Your task to perform on an android device: Open my contact list Image 0: 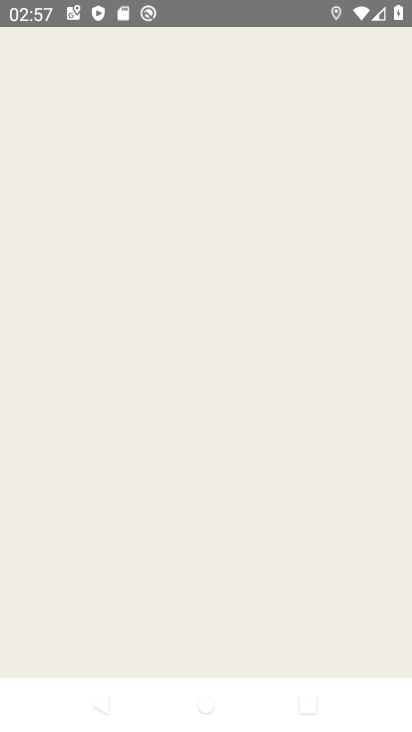
Step 0: press home button
Your task to perform on an android device: Open my contact list Image 1: 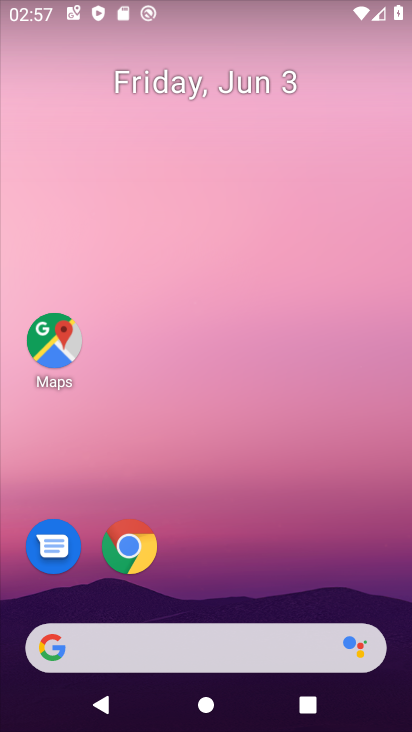
Step 1: drag from (282, 548) to (401, 31)
Your task to perform on an android device: Open my contact list Image 2: 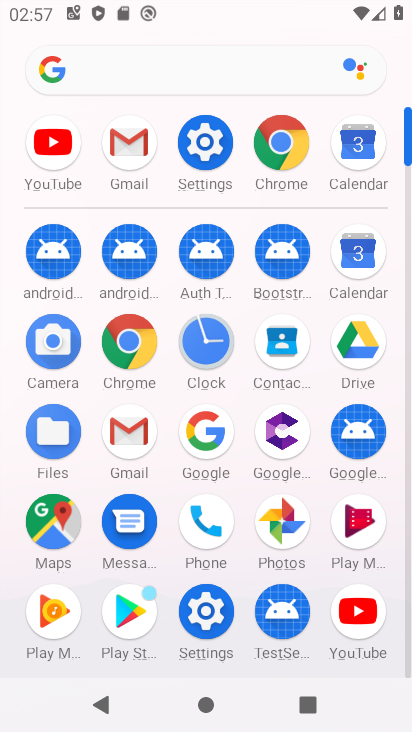
Step 2: click (266, 342)
Your task to perform on an android device: Open my contact list Image 3: 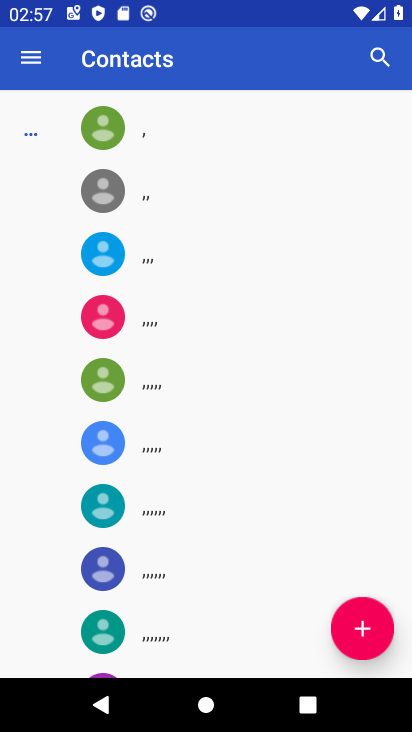
Step 3: task complete